Your task to perform on an android device: open chrome privacy settings Image 0: 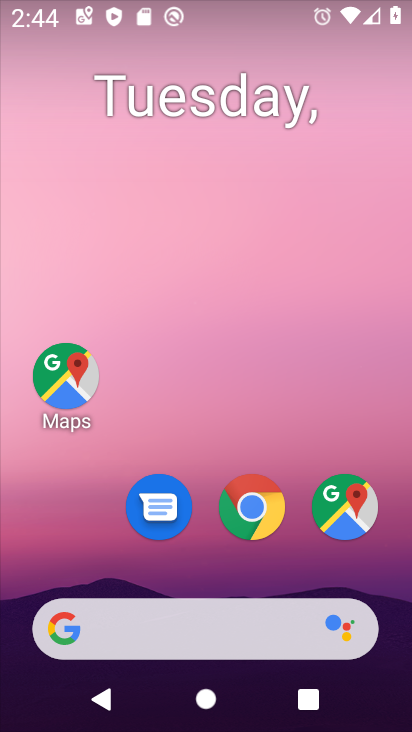
Step 0: drag from (183, 574) to (236, 249)
Your task to perform on an android device: open chrome privacy settings Image 1: 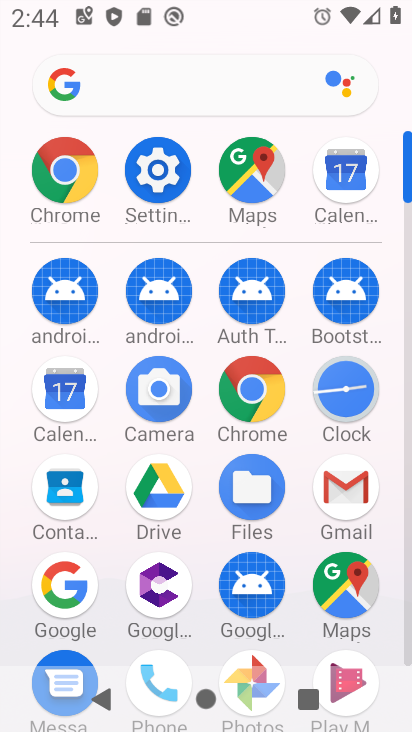
Step 1: click (157, 166)
Your task to perform on an android device: open chrome privacy settings Image 2: 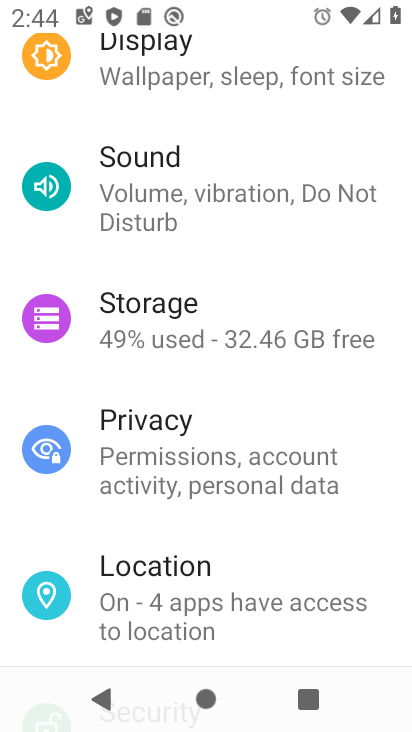
Step 2: click (201, 477)
Your task to perform on an android device: open chrome privacy settings Image 3: 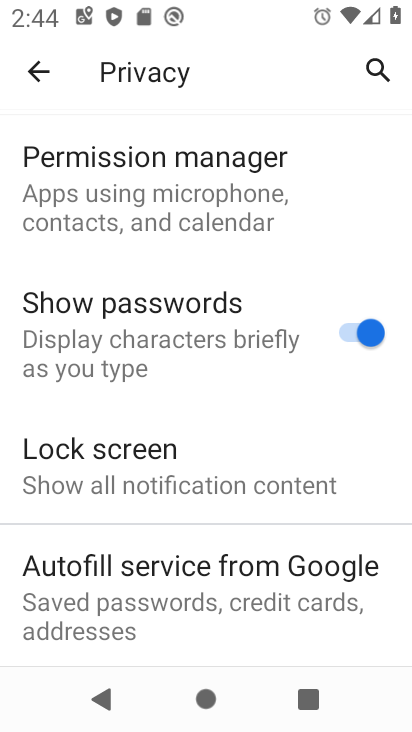
Step 3: task complete